Your task to perform on an android device: Open Yahoo.com Image 0: 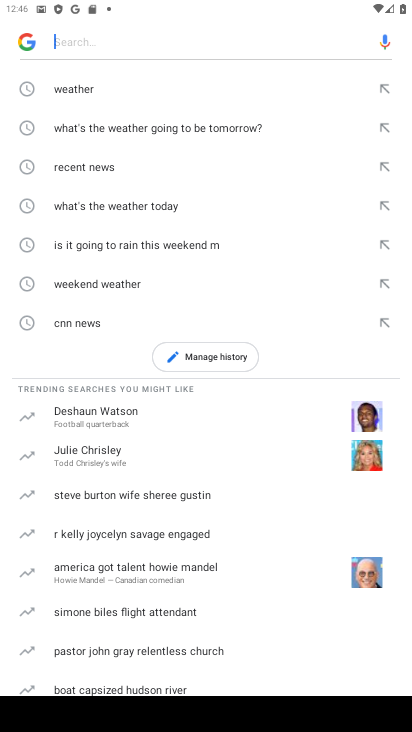
Step 0: press home button
Your task to perform on an android device: Open Yahoo.com Image 1: 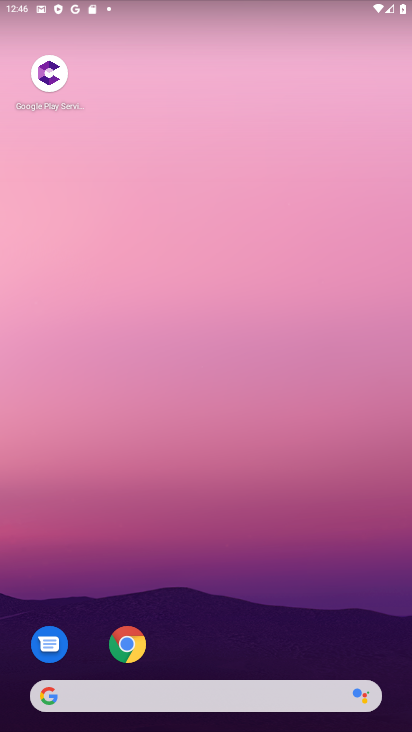
Step 1: drag from (275, 633) to (307, 79)
Your task to perform on an android device: Open Yahoo.com Image 2: 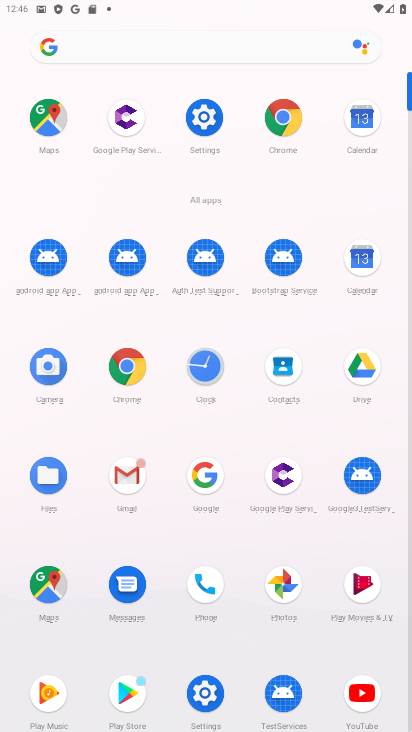
Step 2: click (280, 104)
Your task to perform on an android device: Open Yahoo.com Image 3: 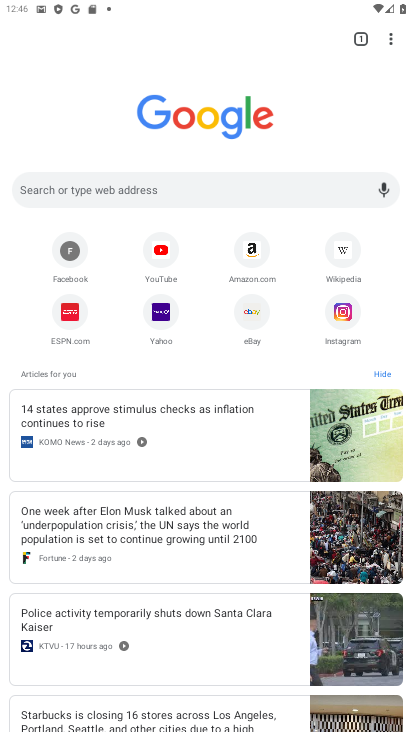
Step 3: click (158, 311)
Your task to perform on an android device: Open Yahoo.com Image 4: 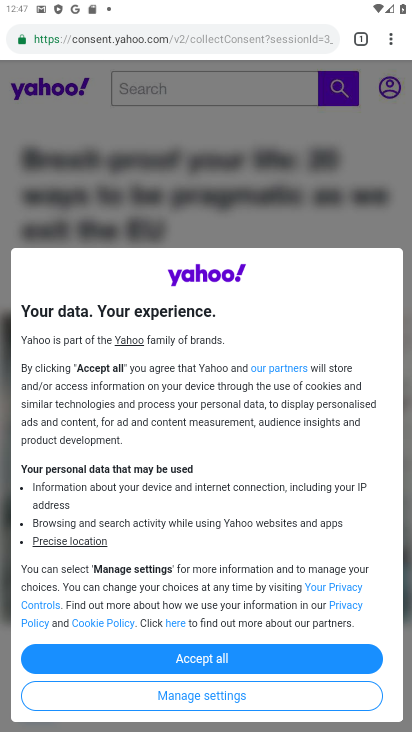
Step 4: click (244, 653)
Your task to perform on an android device: Open Yahoo.com Image 5: 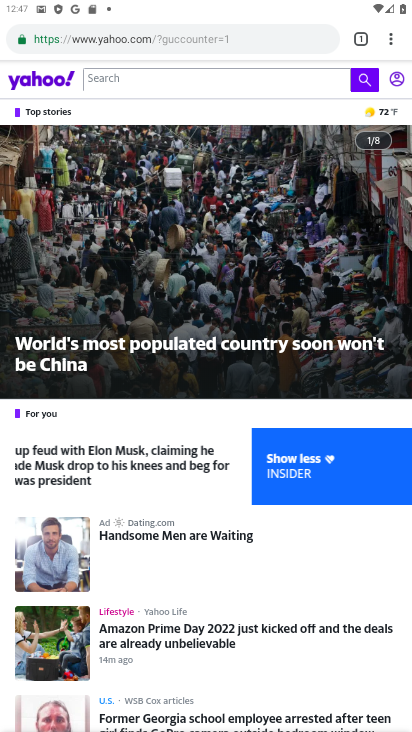
Step 5: task complete